Your task to perform on an android device: all mails in gmail Image 0: 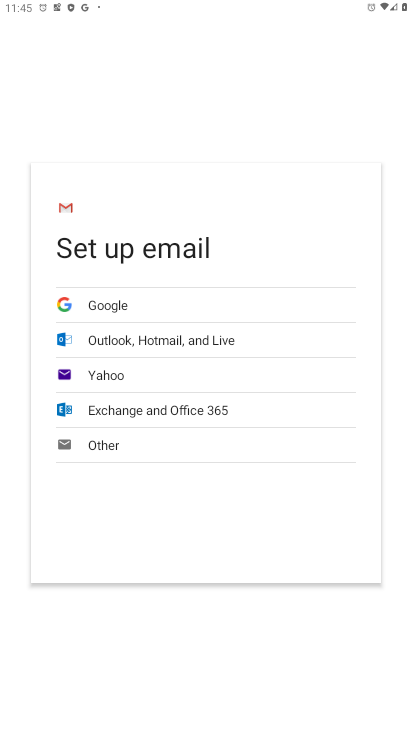
Step 0: press home button
Your task to perform on an android device: all mails in gmail Image 1: 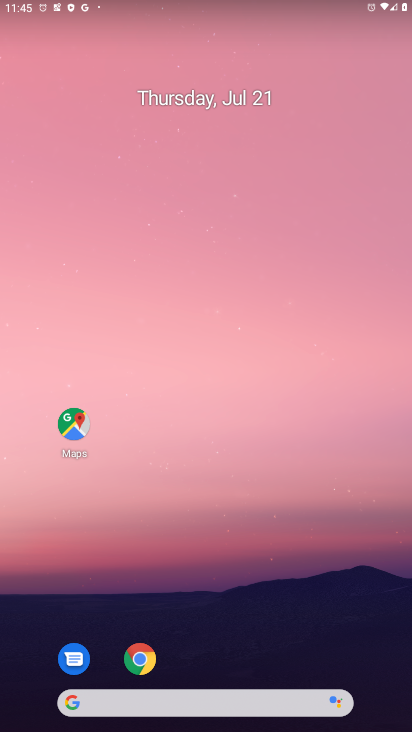
Step 1: drag from (185, 704) to (163, 128)
Your task to perform on an android device: all mails in gmail Image 2: 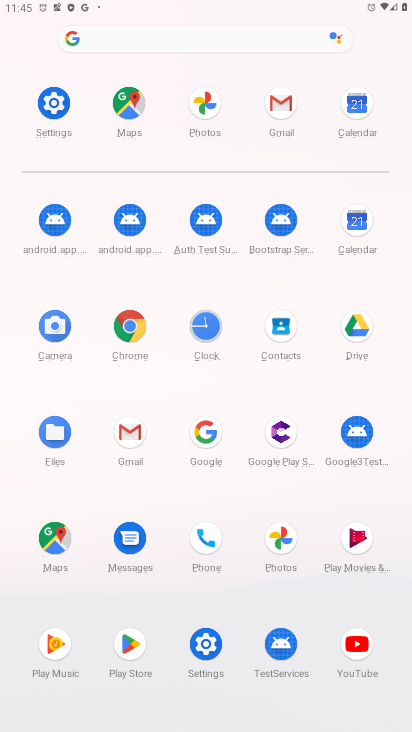
Step 2: click (130, 432)
Your task to perform on an android device: all mails in gmail Image 3: 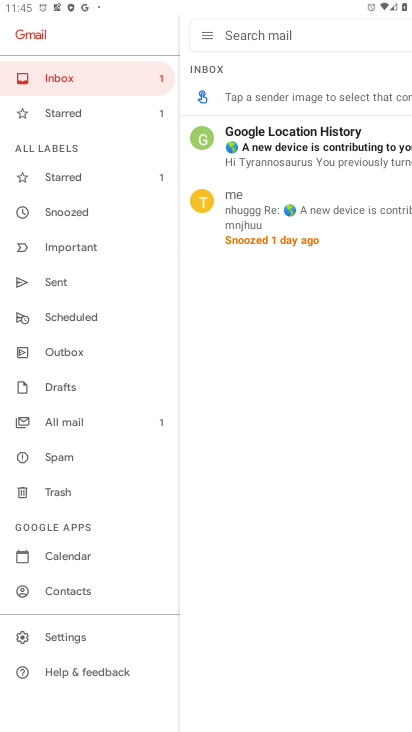
Step 3: click (75, 419)
Your task to perform on an android device: all mails in gmail Image 4: 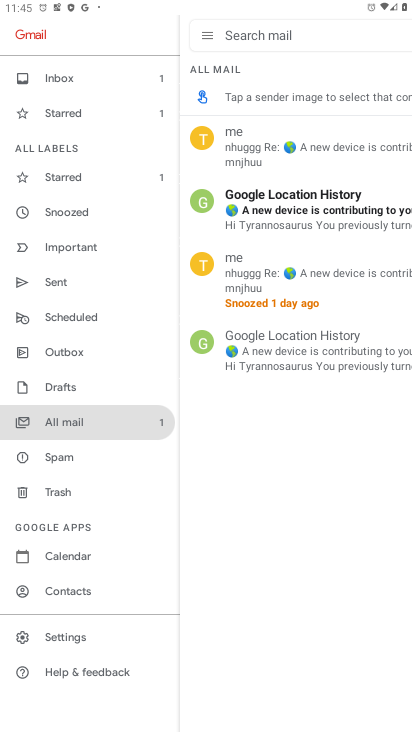
Step 4: task complete